Your task to perform on an android device: Is it going to rain tomorrow? Image 0: 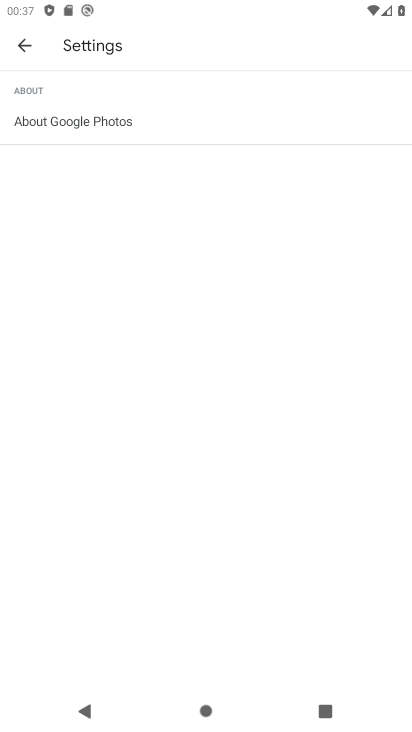
Step 0: press home button
Your task to perform on an android device: Is it going to rain tomorrow? Image 1: 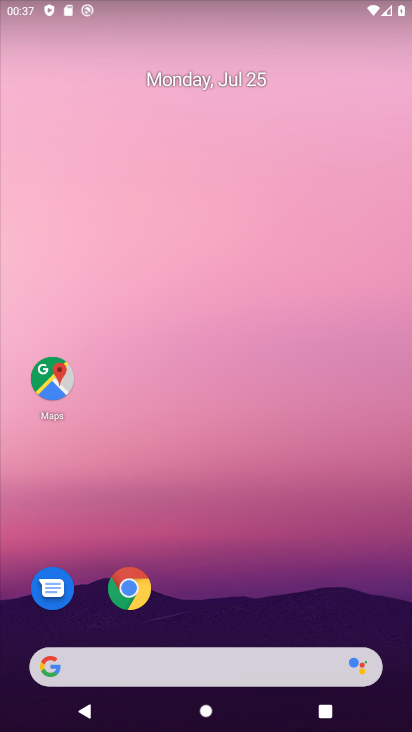
Step 1: click (172, 671)
Your task to perform on an android device: Is it going to rain tomorrow? Image 2: 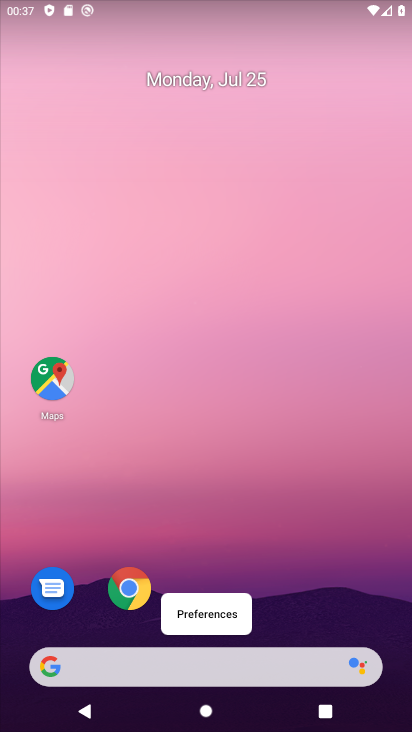
Step 2: click (179, 677)
Your task to perform on an android device: Is it going to rain tomorrow? Image 3: 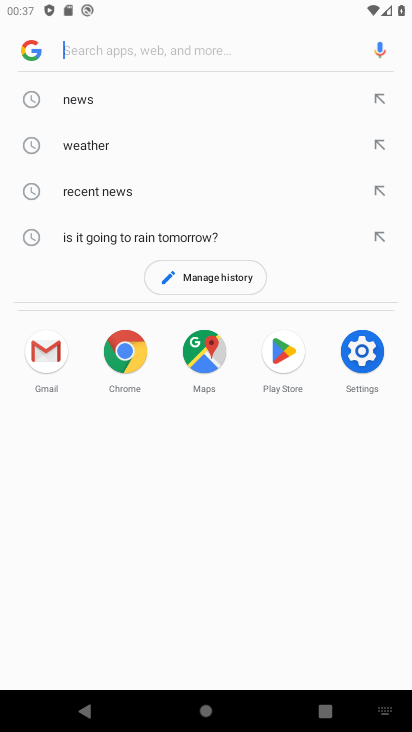
Step 3: click (84, 149)
Your task to perform on an android device: Is it going to rain tomorrow? Image 4: 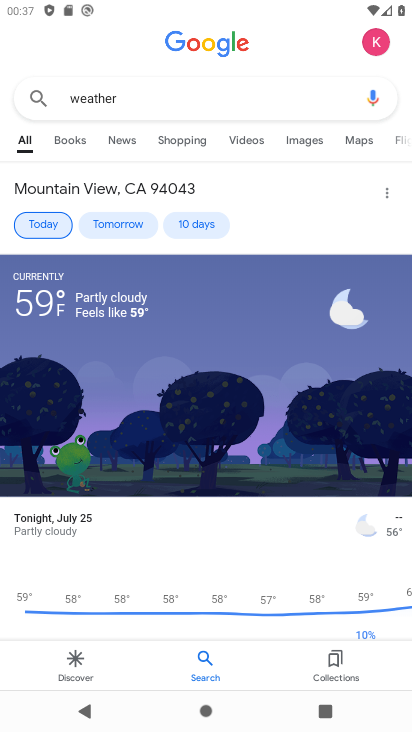
Step 4: click (134, 220)
Your task to perform on an android device: Is it going to rain tomorrow? Image 5: 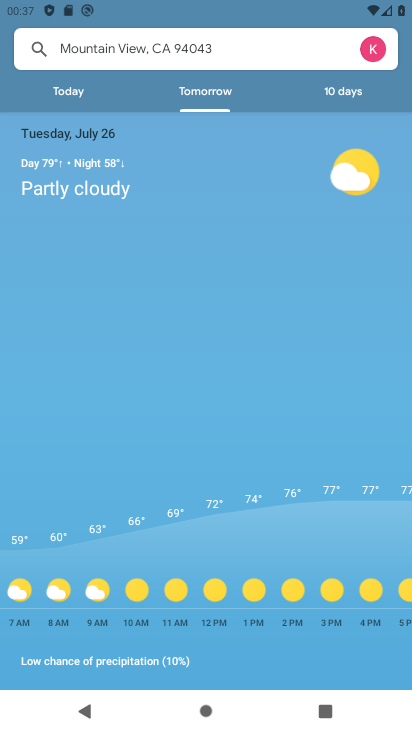
Step 5: task complete